Your task to perform on an android device: open the mobile data screen to see how much data has been used Image 0: 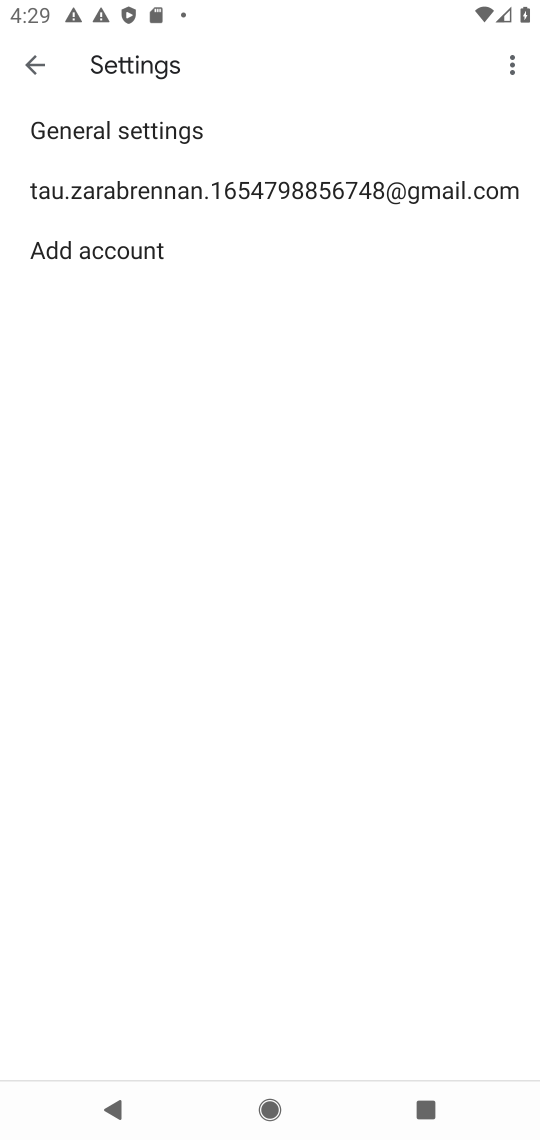
Step 0: press home button
Your task to perform on an android device: open the mobile data screen to see how much data has been used Image 1: 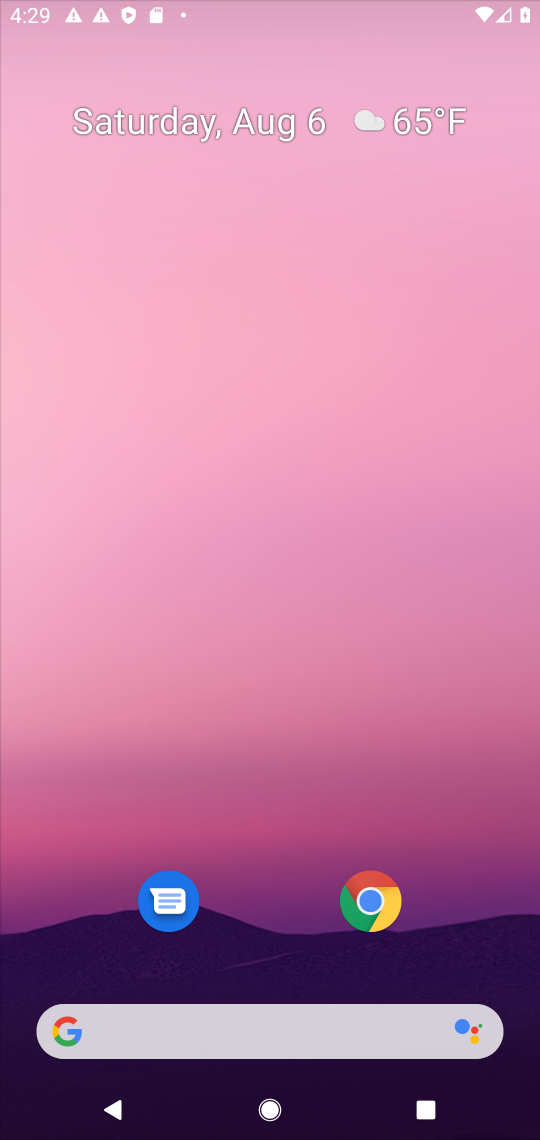
Step 1: drag from (387, 2) to (440, 979)
Your task to perform on an android device: open the mobile data screen to see how much data has been used Image 2: 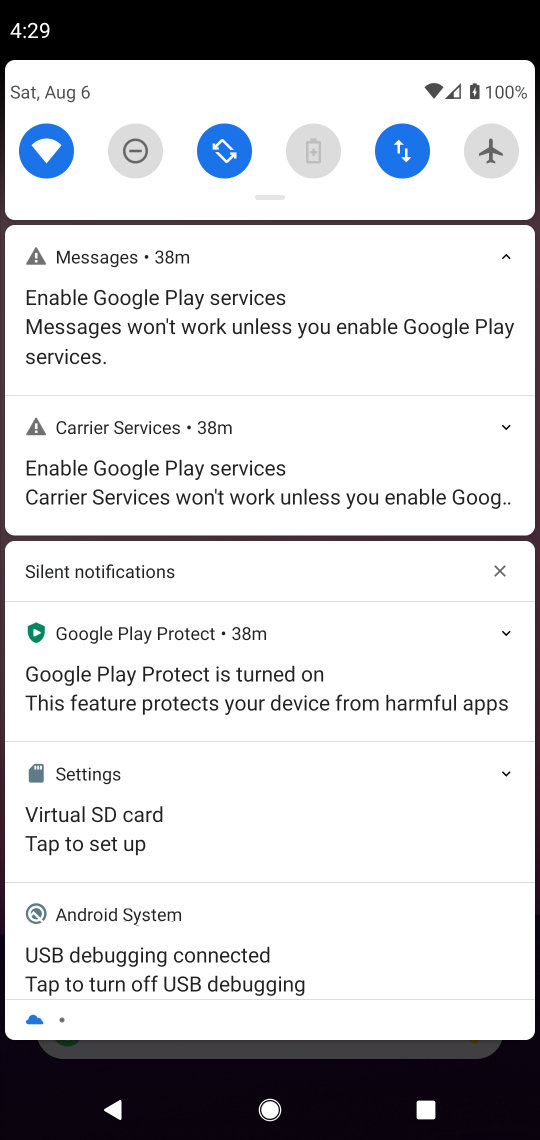
Step 2: click (406, 142)
Your task to perform on an android device: open the mobile data screen to see how much data has been used Image 3: 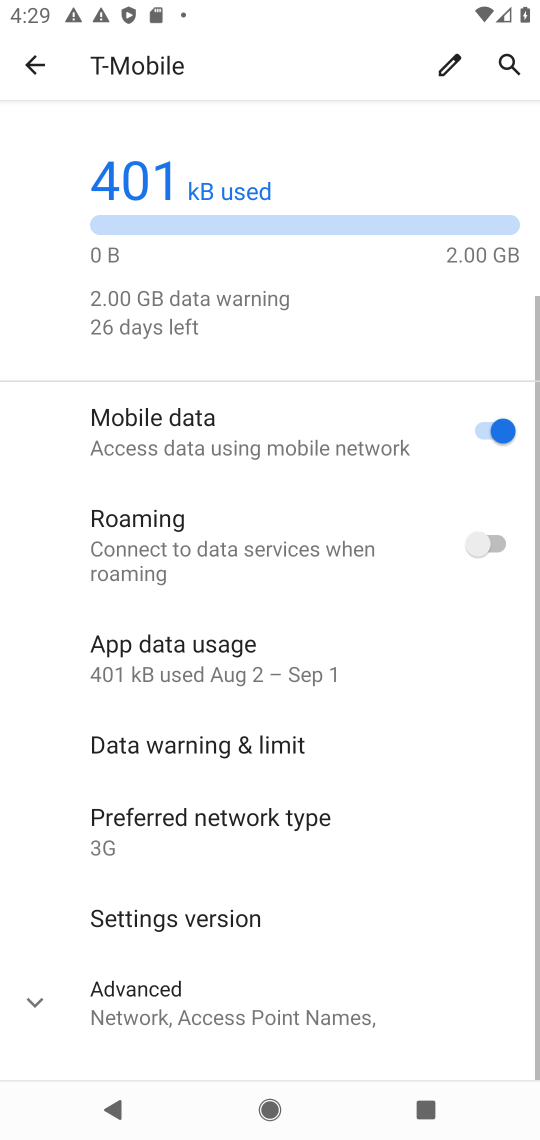
Step 3: task complete